Your task to perform on an android device: turn off notifications in google photos Image 0: 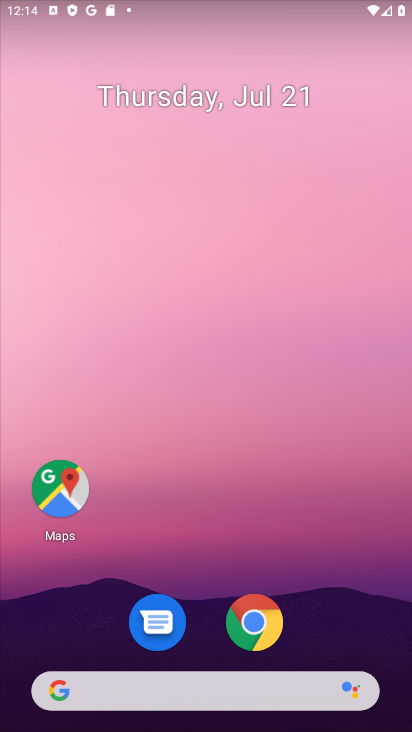
Step 0: drag from (295, 680) to (375, 238)
Your task to perform on an android device: turn off notifications in google photos Image 1: 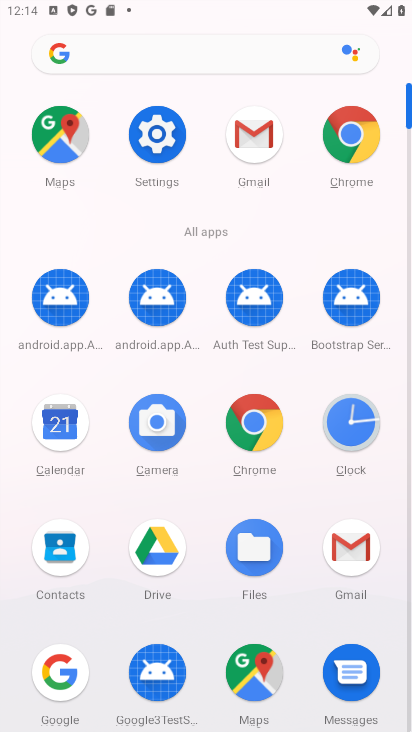
Step 1: drag from (306, 583) to (355, 321)
Your task to perform on an android device: turn off notifications in google photos Image 2: 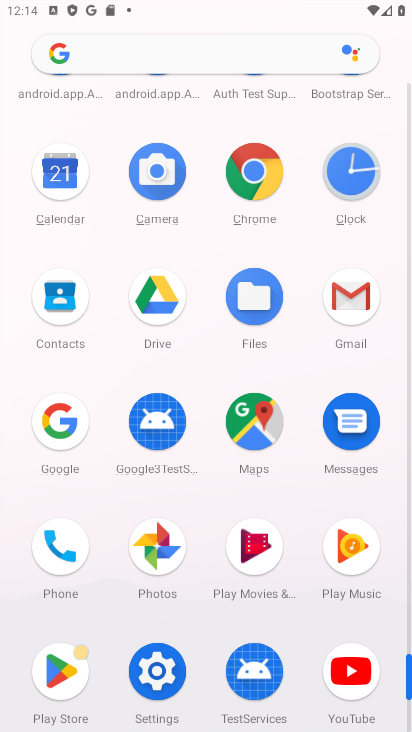
Step 2: click (157, 559)
Your task to perform on an android device: turn off notifications in google photos Image 3: 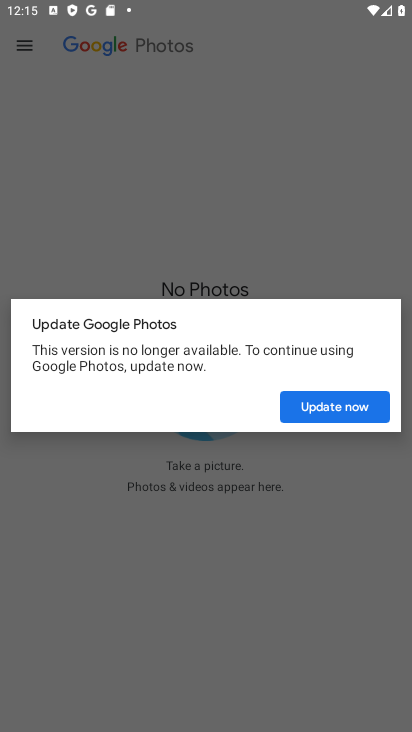
Step 3: click (334, 409)
Your task to perform on an android device: turn off notifications in google photos Image 4: 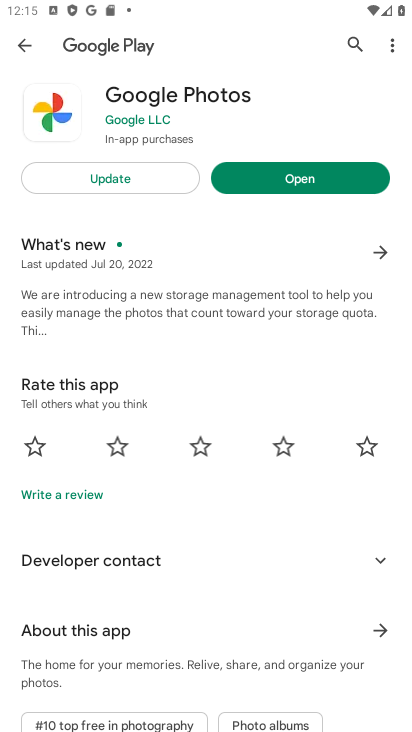
Step 4: click (87, 177)
Your task to perform on an android device: turn off notifications in google photos Image 5: 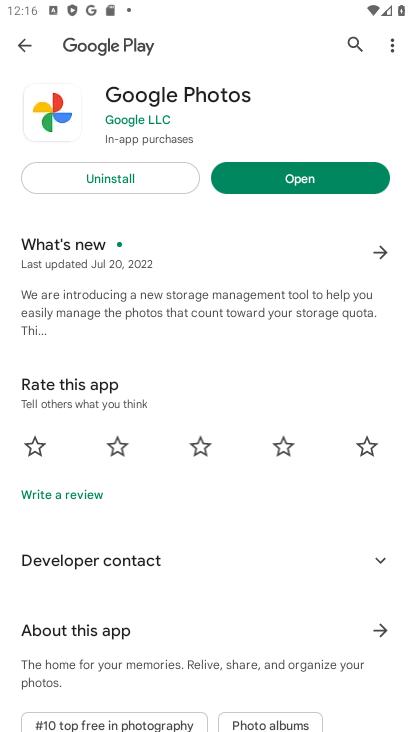
Step 5: click (301, 176)
Your task to perform on an android device: turn off notifications in google photos Image 6: 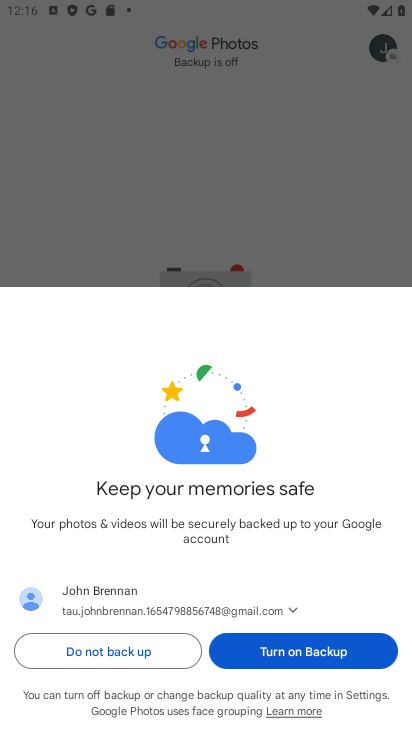
Step 6: click (243, 653)
Your task to perform on an android device: turn off notifications in google photos Image 7: 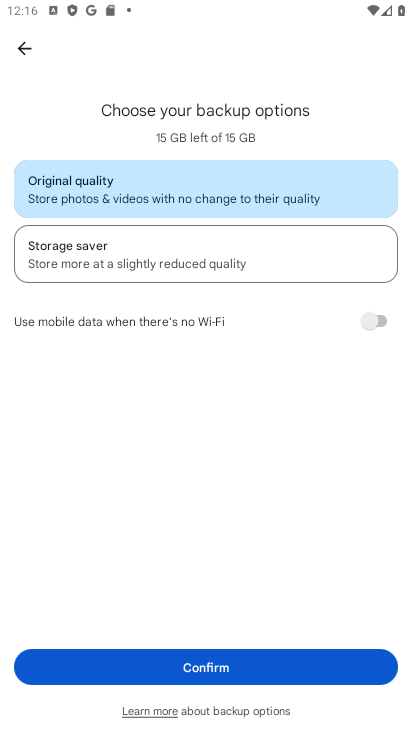
Step 7: click (239, 662)
Your task to perform on an android device: turn off notifications in google photos Image 8: 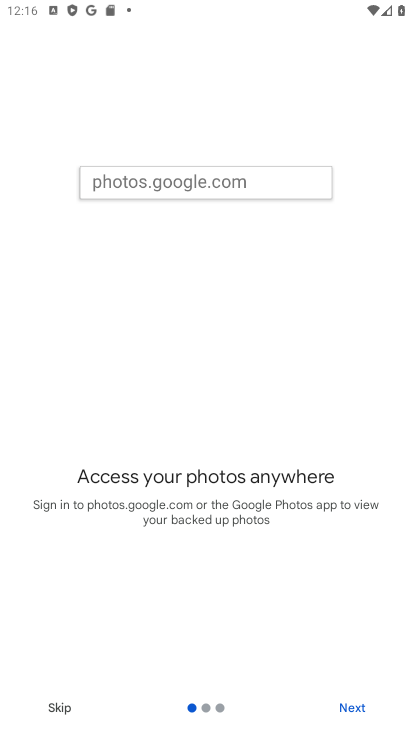
Step 8: click (345, 702)
Your task to perform on an android device: turn off notifications in google photos Image 9: 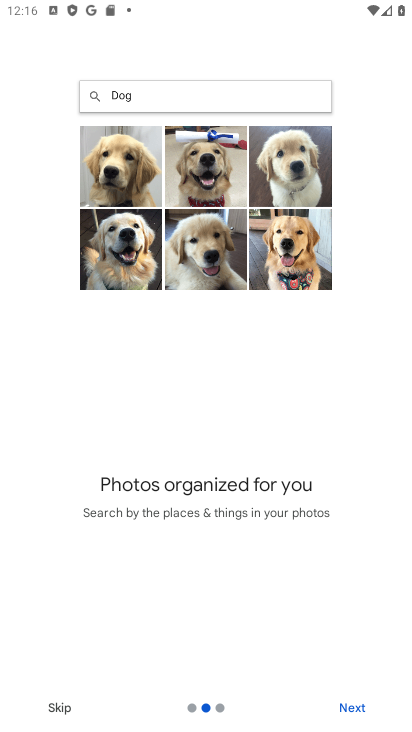
Step 9: click (342, 705)
Your task to perform on an android device: turn off notifications in google photos Image 10: 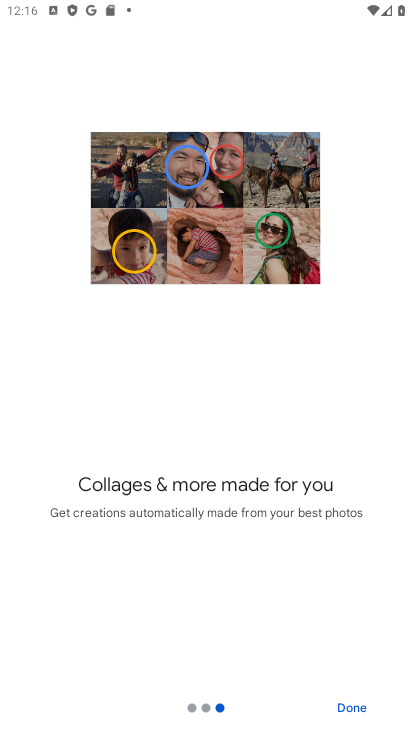
Step 10: click (343, 706)
Your task to perform on an android device: turn off notifications in google photos Image 11: 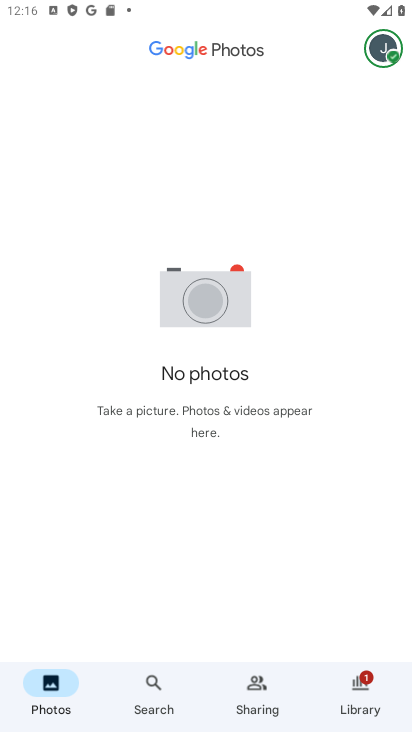
Step 11: click (376, 56)
Your task to perform on an android device: turn off notifications in google photos Image 12: 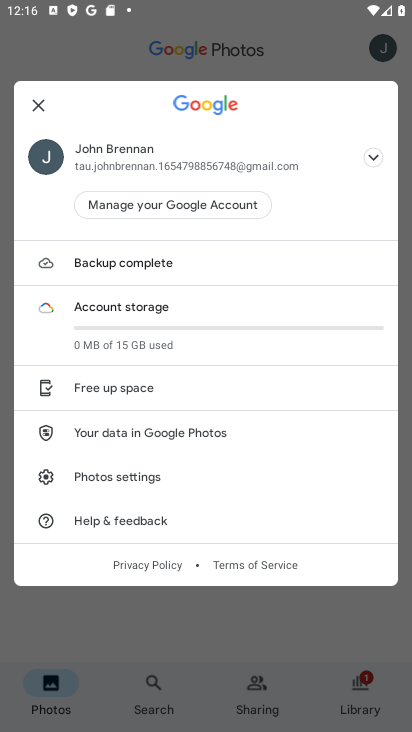
Step 12: click (141, 483)
Your task to perform on an android device: turn off notifications in google photos Image 13: 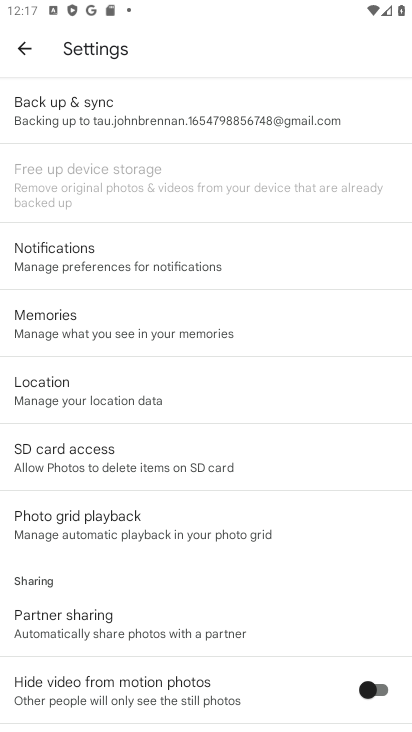
Step 13: click (115, 254)
Your task to perform on an android device: turn off notifications in google photos Image 14: 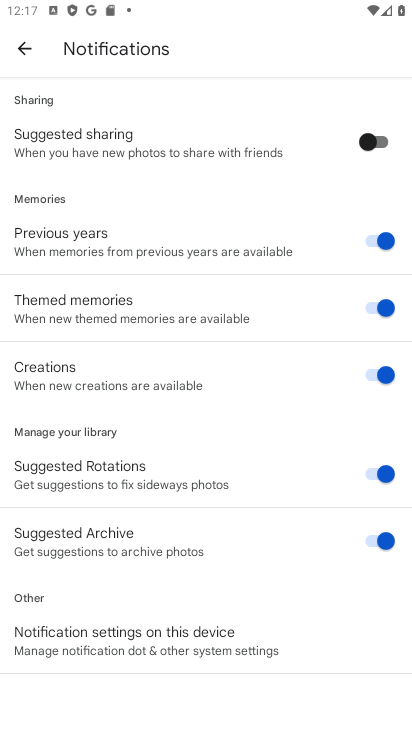
Step 14: click (129, 648)
Your task to perform on an android device: turn off notifications in google photos Image 15: 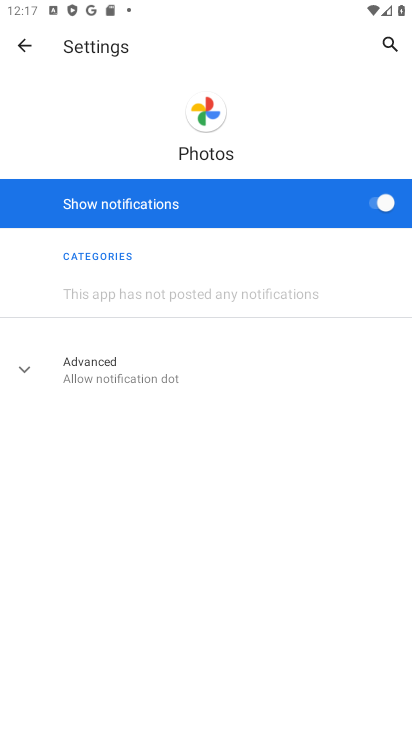
Step 15: click (379, 197)
Your task to perform on an android device: turn off notifications in google photos Image 16: 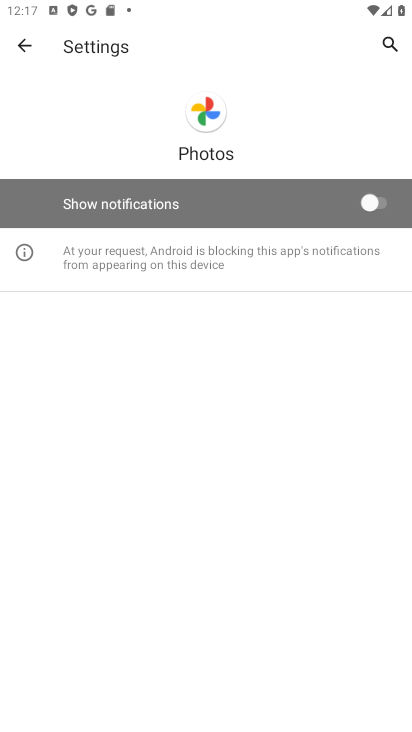
Step 16: task complete